Your task to perform on an android device: Go to CNN.com Image 0: 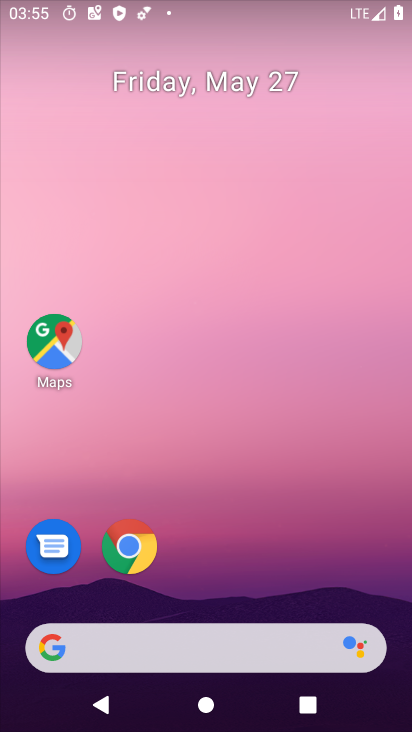
Step 0: click (129, 539)
Your task to perform on an android device: Go to CNN.com Image 1: 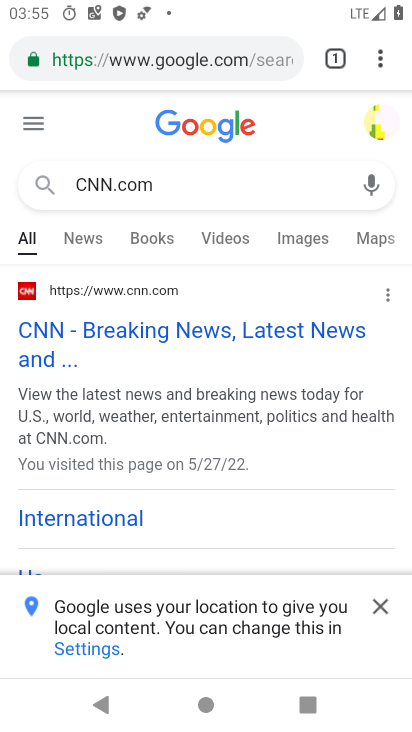
Step 1: task complete